Your task to perform on an android device: Go to Android settings Image 0: 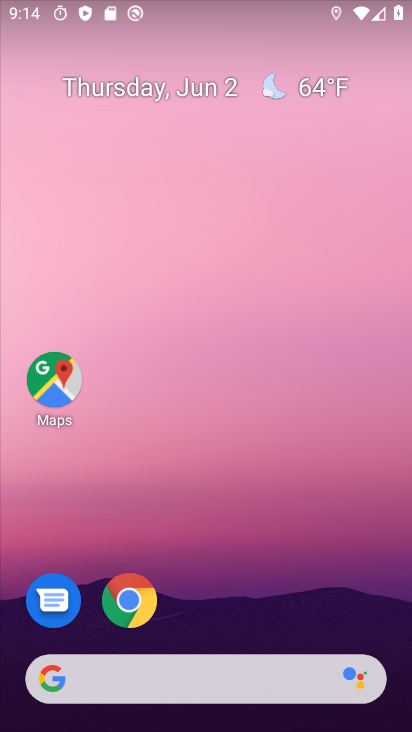
Step 0: drag from (233, 619) to (276, 4)
Your task to perform on an android device: Go to Android settings Image 1: 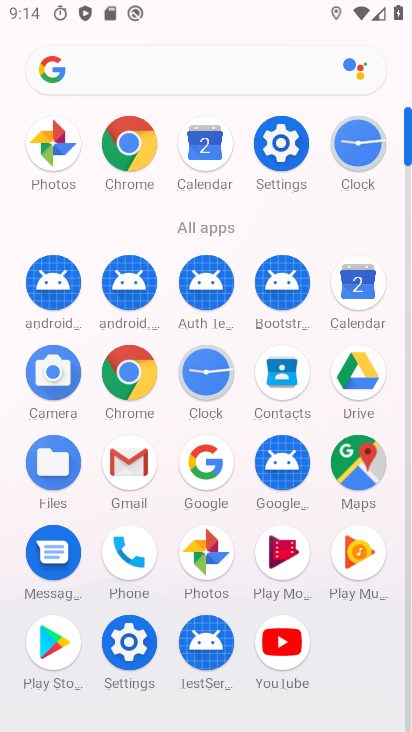
Step 1: click (284, 147)
Your task to perform on an android device: Go to Android settings Image 2: 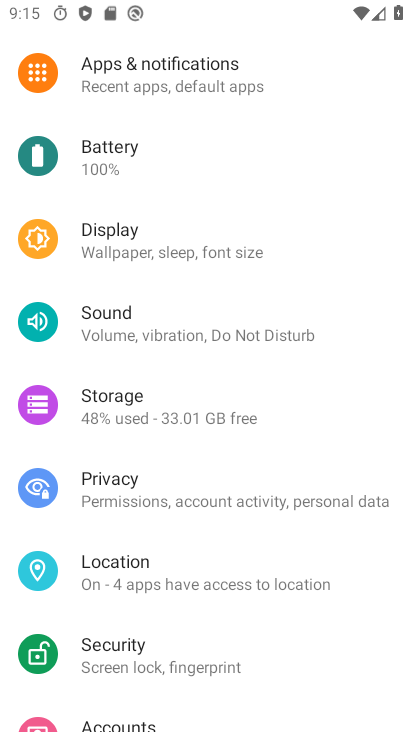
Step 2: task complete